Your task to perform on an android device: check storage Image 0: 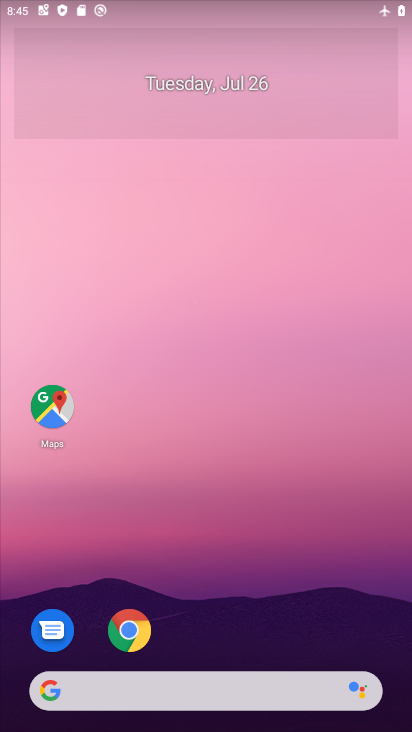
Step 0: drag from (273, 633) to (261, 252)
Your task to perform on an android device: check storage Image 1: 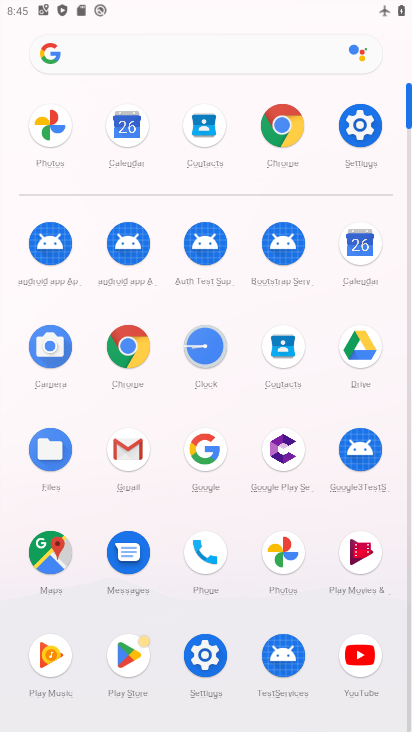
Step 1: click (350, 155)
Your task to perform on an android device: check storage Image 2: 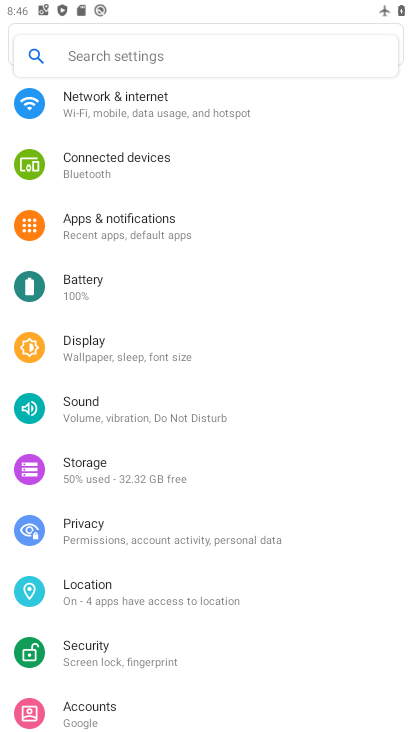
Step 2: click (72, 452)
Your task to perform on an android device: check storage Image 3: 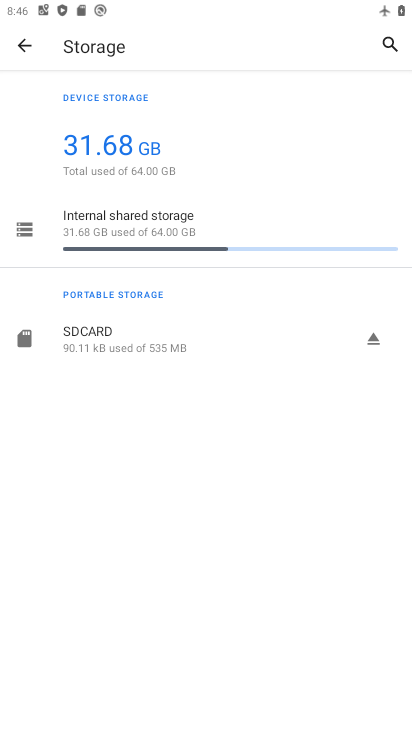
Step 3: task complete